Your task to perform on an android device: visit the assistant section in the google photos Image 0: 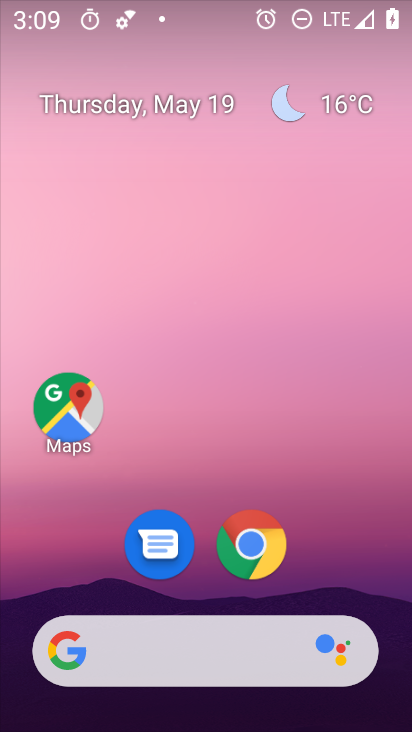
Step 0: drag from (379, 578) to (349, 86)
Your task to perform on an android device: visit the assistant section in the google photos Image 1: 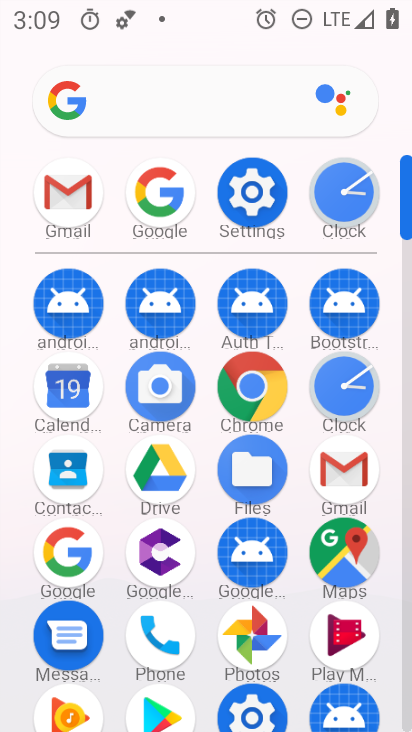
Step 1: click (258, 647)
Your task to perform on an android device: visit the assistant section in the google photos Image 2: 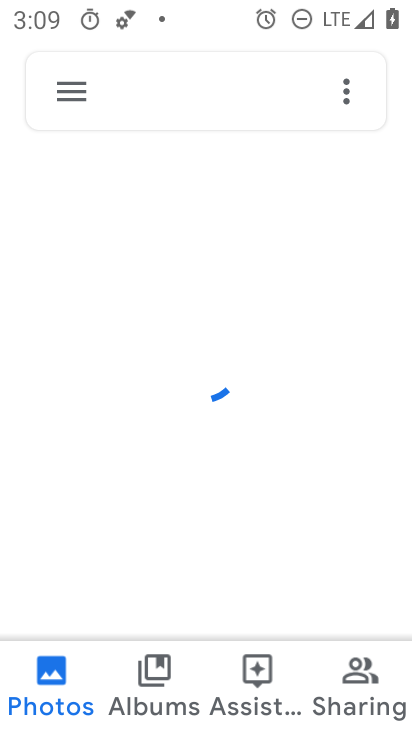
Step 2: click (263, 706)
Your task to perform on an android device: visit the assistant section in the google photos Image 3: 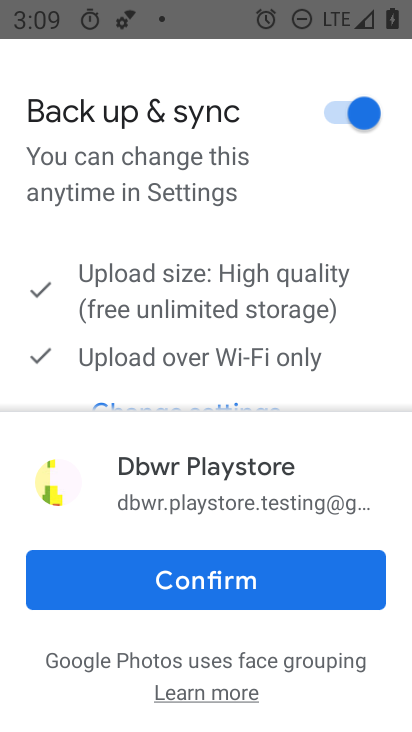
Step 3: click (227, 567)
Your task to perform on an android device: visit the assistant section in the google photos Image 4: 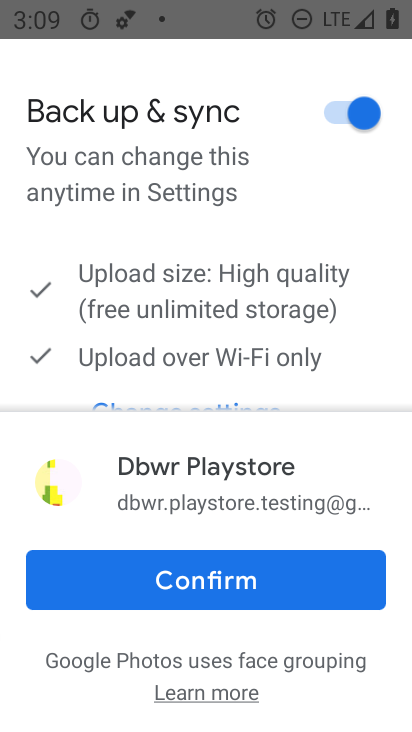
Step 4: click (281, 569)
Your task to perform on an android device: visit the assistant section in the google photos Image 5: 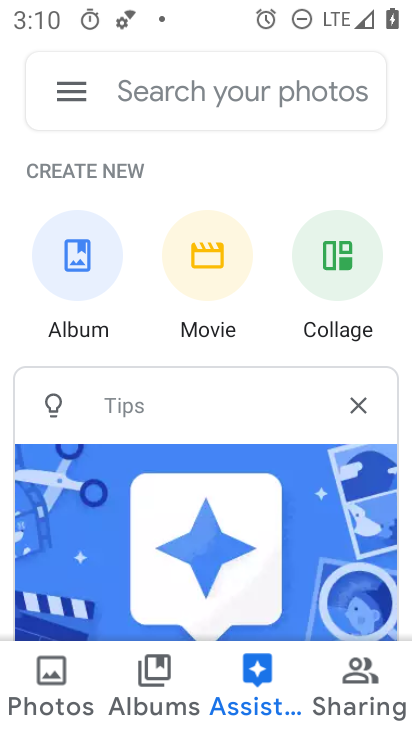
Step 5: task complete